Your task to perform on an android device: What's the weather? Image 0: 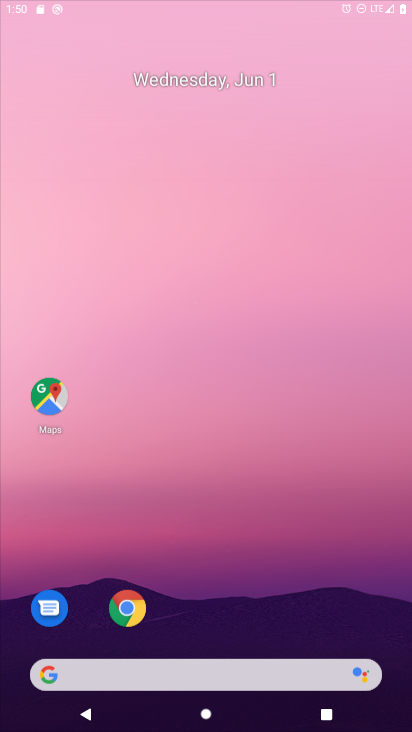
Step 0: drag from (204, 606) to (159, 151)
Your task to perform on an android device: What's the weather? Image 1: 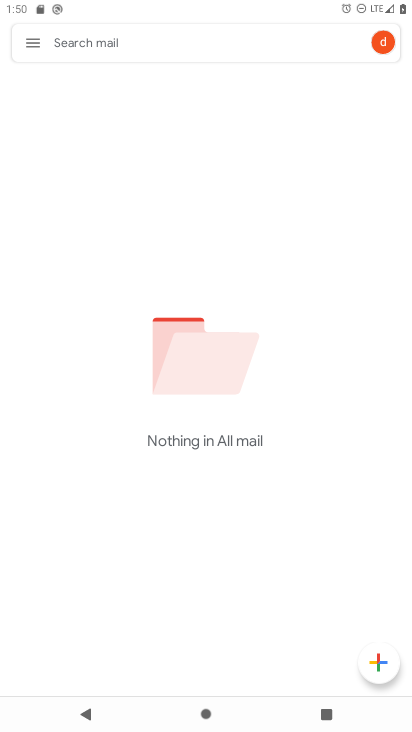
Step 1: press home button
Your task to perform on an android device: What's the weather? Image 2: 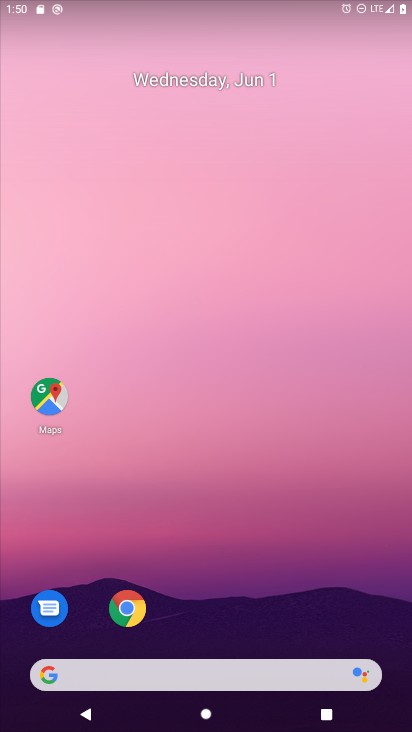
Step 2: drag from (199, 637) to (164, 233)
Your task to perform on an android device: What's the weather? Image 3: 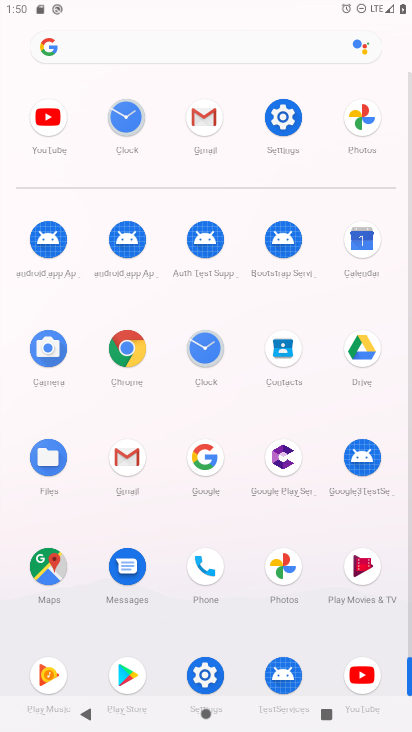
Step 3: click (206, 474)
Your task to perform on an android device: What's the weather? Image 4: 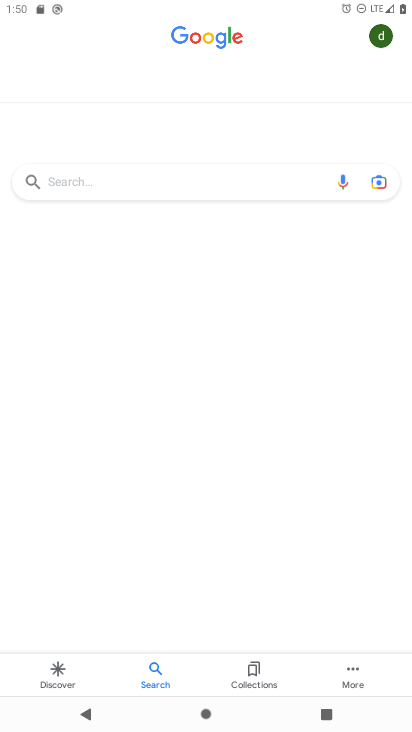
Step 4: click (95, 185)
Your task to perform on an android device: What's the weather? Image 5: 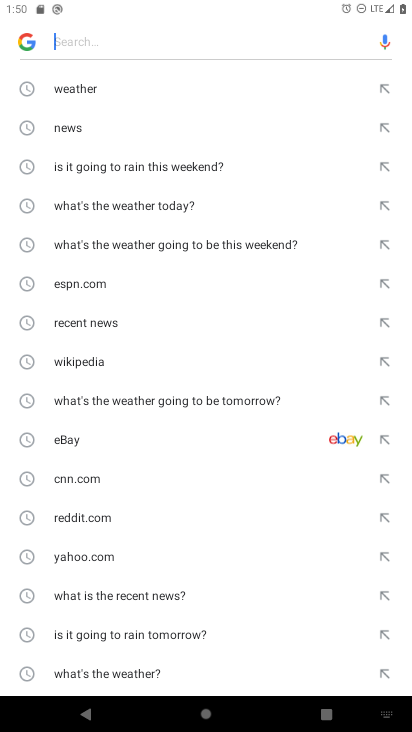
Step 5: click (76, 90)
Your task to perform on an android device: What's the weather? Image 6: 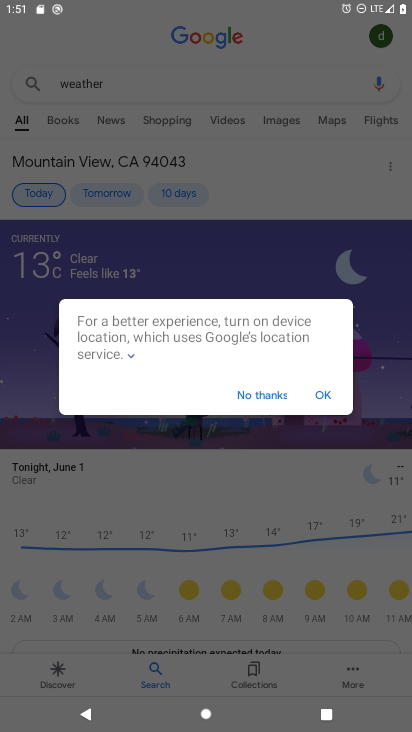
Step 6: click (326, 388)
Your task to perform on an android device: What's the weather? Image 7: 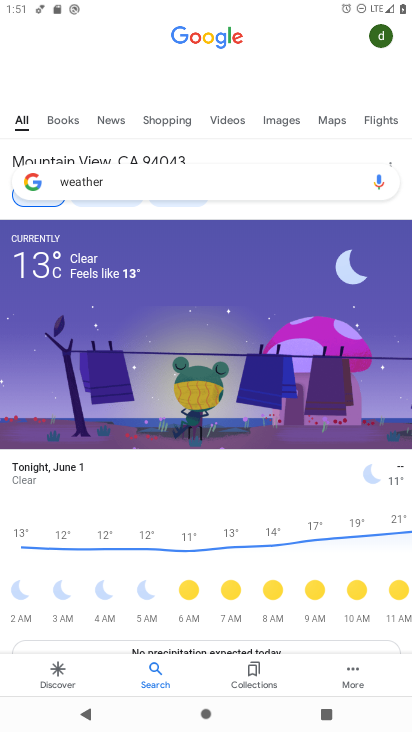
Step 7: task complete